Your task to perform on an android device: Play the last video I watched on Youtube Image 0: 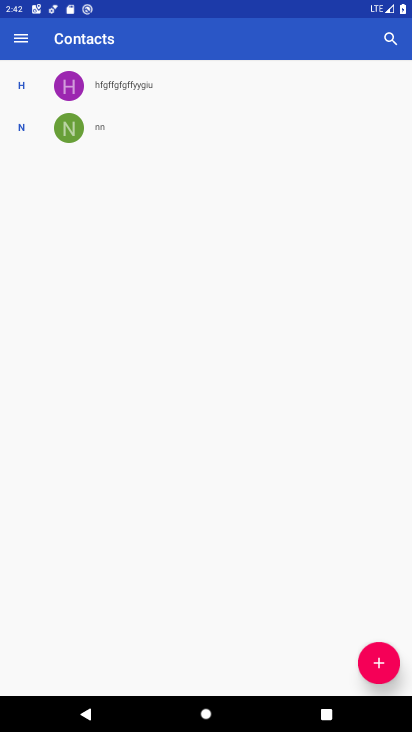
Step 0: press home button
Your task to perform on an android device: Play the last video I watched on Youtube Image 1: 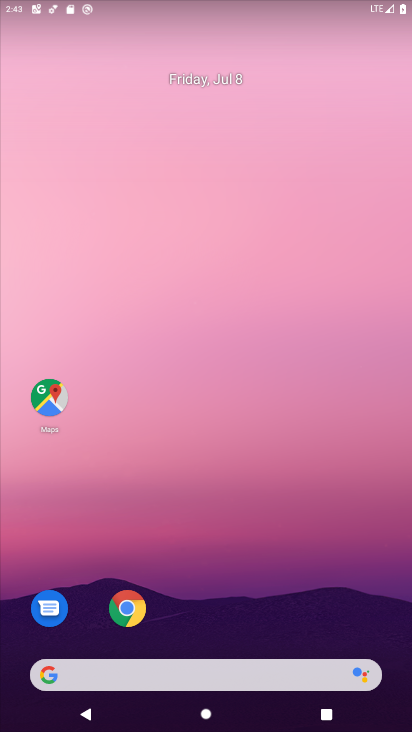
Step 1: drag from (303, 602) to (324, 186)
Your task to perform on an android device: Play the last video I watched on Youtube Image 2: 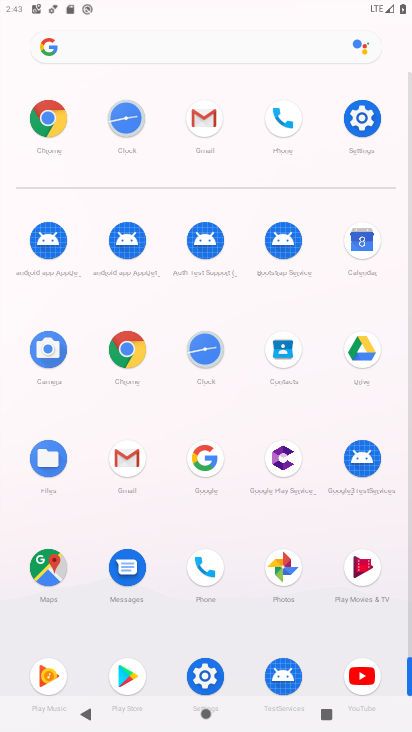
Step 2: click (376, 671)
Your task to perform on an android device: Play the last video I watched on Youtube Image 3: 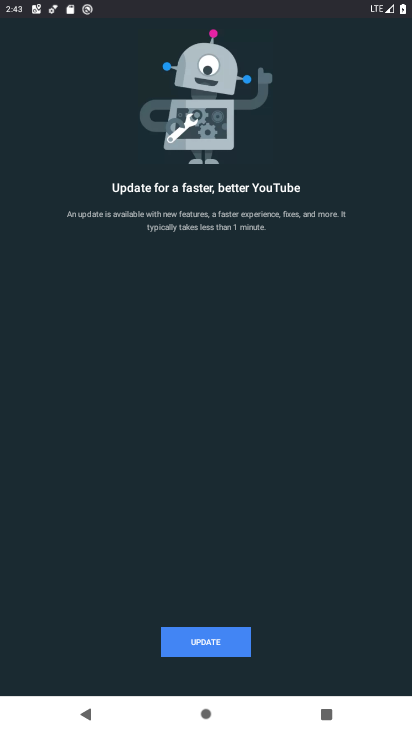
Step 3: task complete